Your task to perform on an android device: toggle airplane mode Image 0: 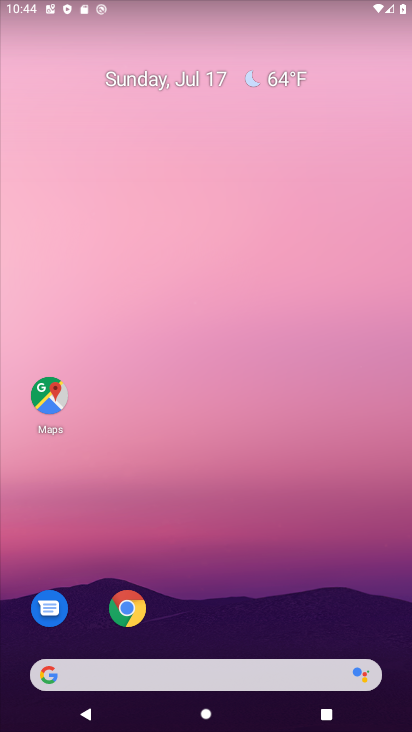
Step 0: click (212, 322)
Your task to perform on an android device: toggle airplane mode Image 1: 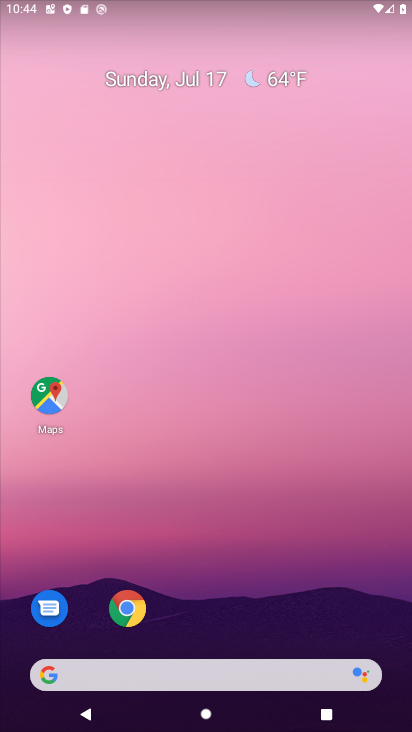
Step 1: click (161, 256)
Your task to perform on an android device: toggle airplane mode Image 2: 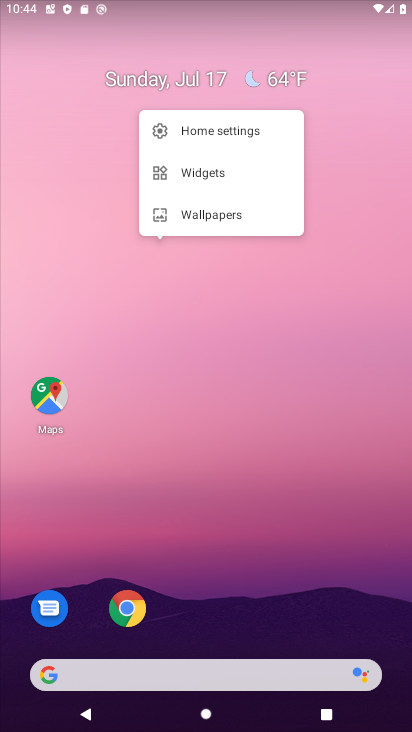
Step 2: drag from (45, 683) to (409, 35)
Your task to perform on an android device: toggle airplane mode Image 3: 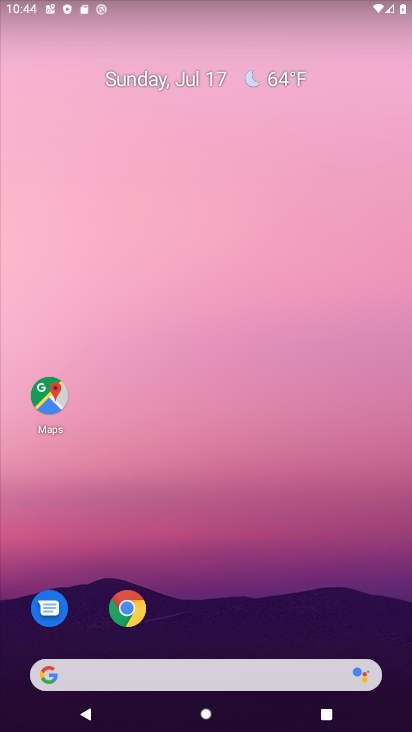
Step 3: drag from (60, 709) to (220, 199)
Your task to perform on an android device: toggle airplane mode Image 4: 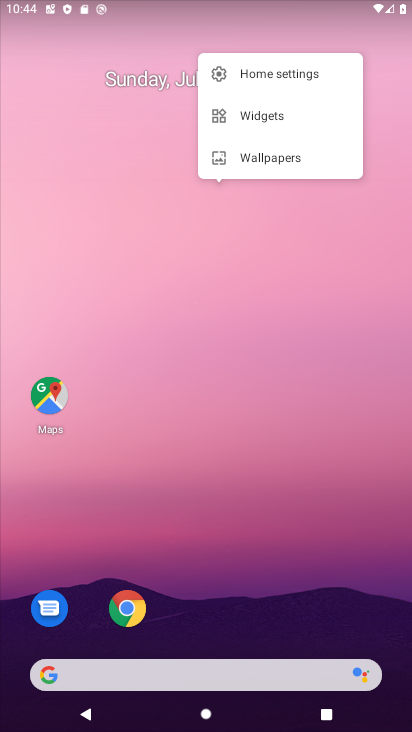
Step 4: drag from (54, 694) to (225, 20)
Your task to perform on an android device: toggle airplane mode Image 5: 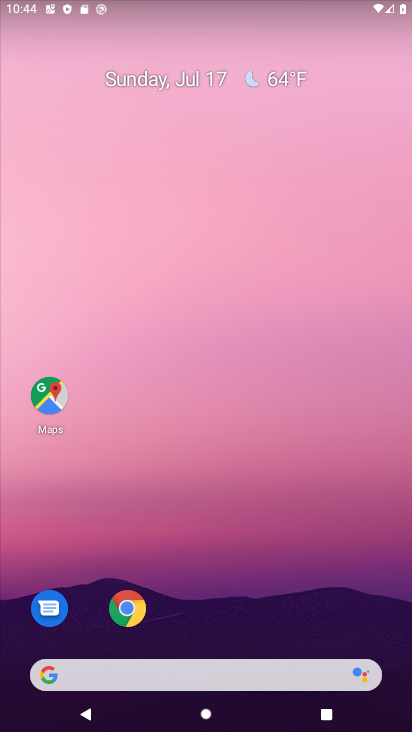
Step 5: drag from (22, 693) to (271, 134)
Your task to perform on an android device: toggle airplane mode Image 6: 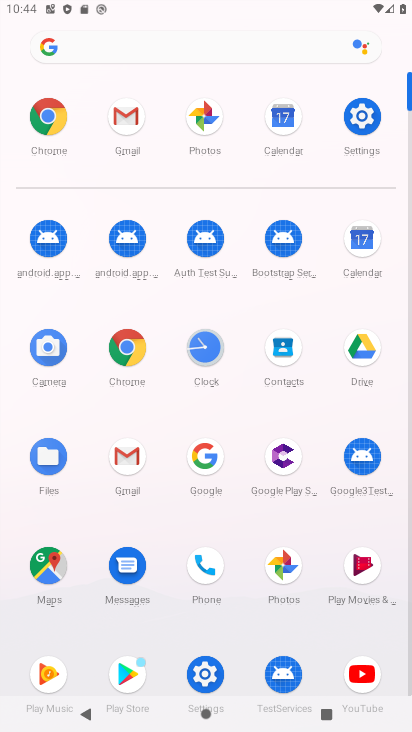
Step 6: click (224, 681)
Your task to perform on an android device: toggle airplane mode Image 7: 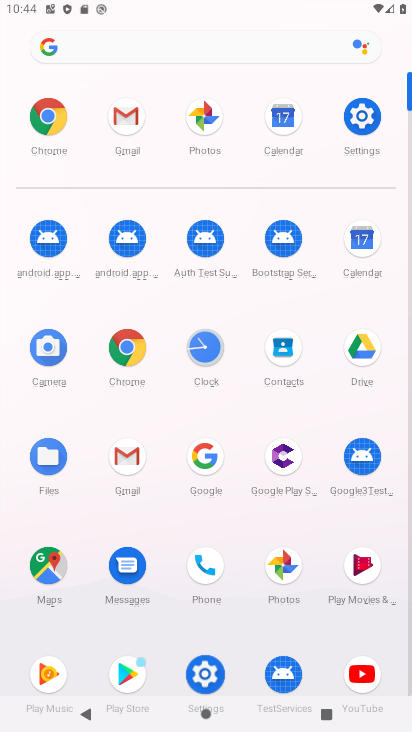
Step 7: click (203, 667)
Your task to perform on an android device: toggle airplane mode Image 8: 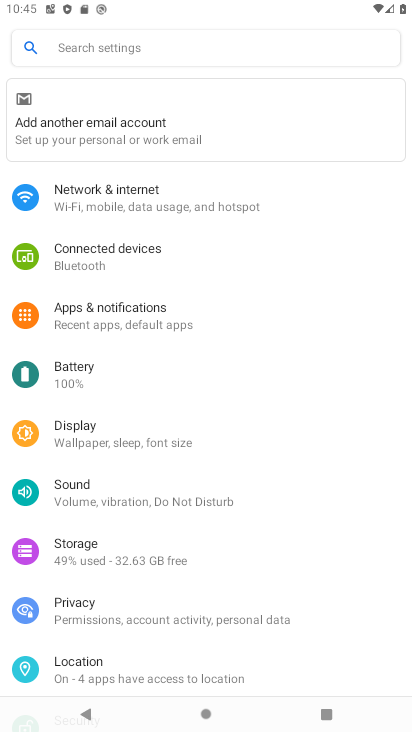
Step 8: click (104, 199)
Your task to perform on an android device: toggle airplane mode Image 9: 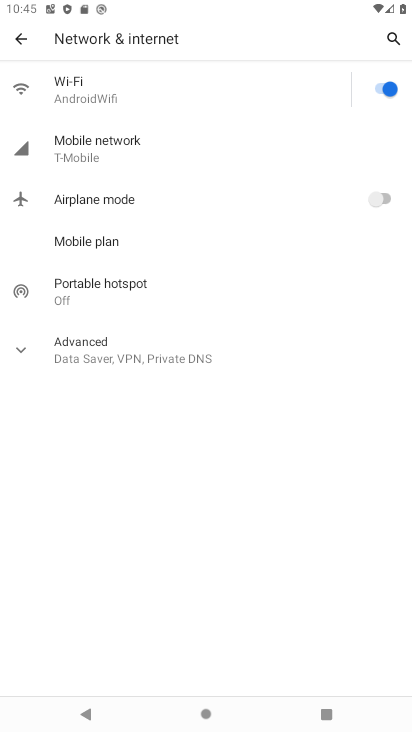
Step 9: click (372, 197)
Your task to perform on an android device: toggle airplane mode Image 10: 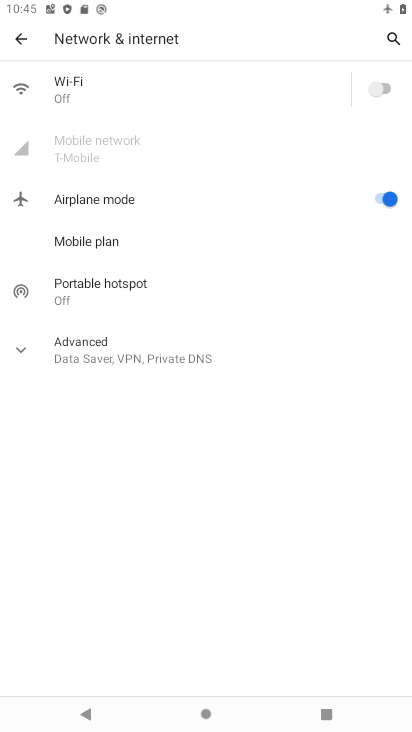
Step 10: task complete